Your task to perform on an android device: uninstall "Google Photos" Image 0: 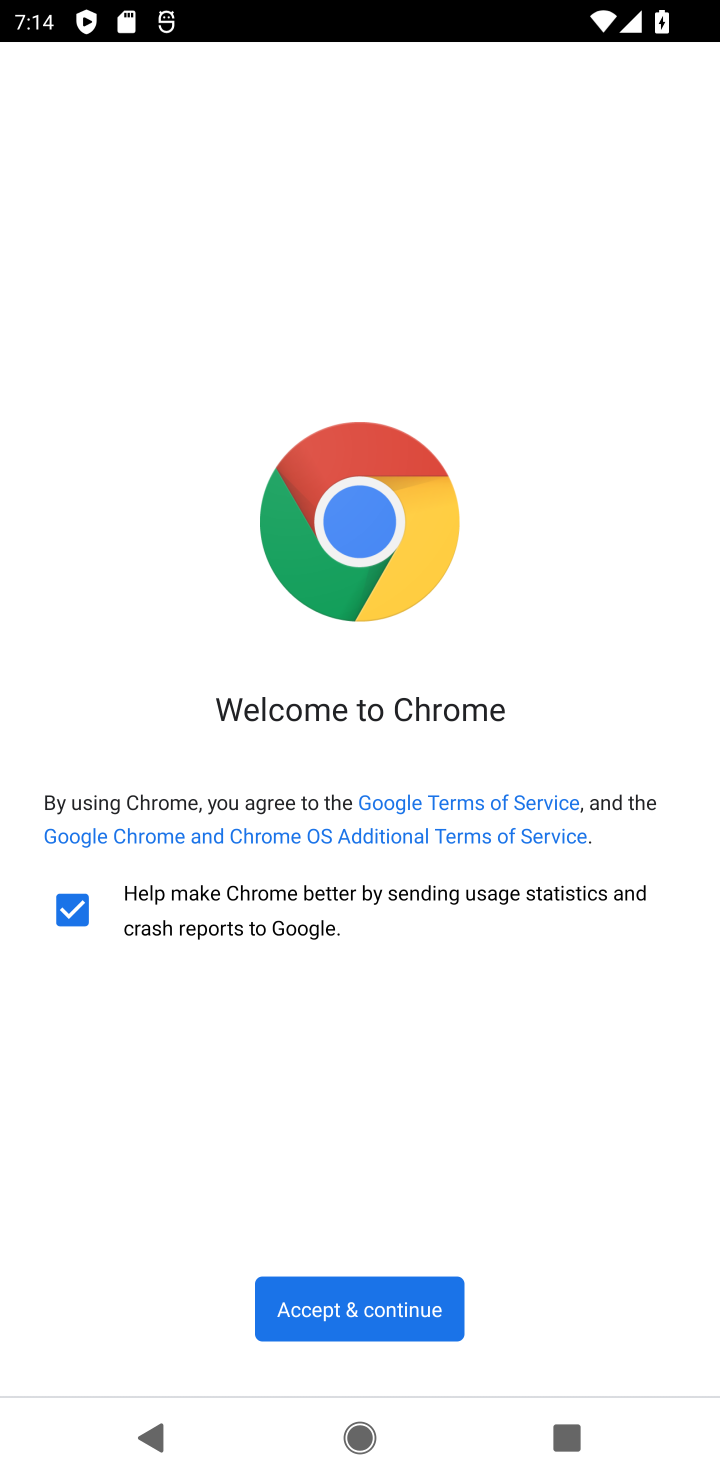
Step 0: press home button
Your task to perform on an android device: uninstall "Google Photos" Image 1: 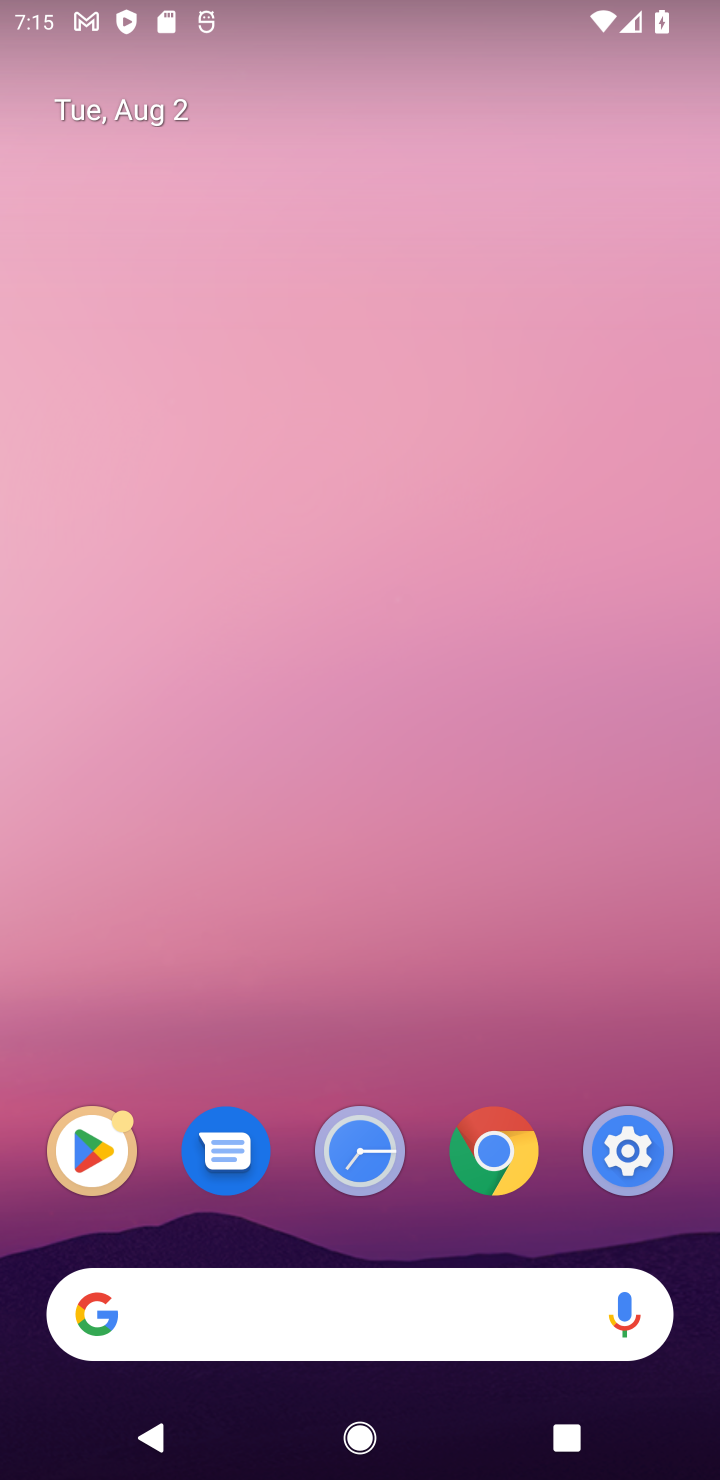
Step 1: drag from (356, 1238) to (458, 61)
Your task to perform on an android device: uninstall "Google Photos" Image 2: 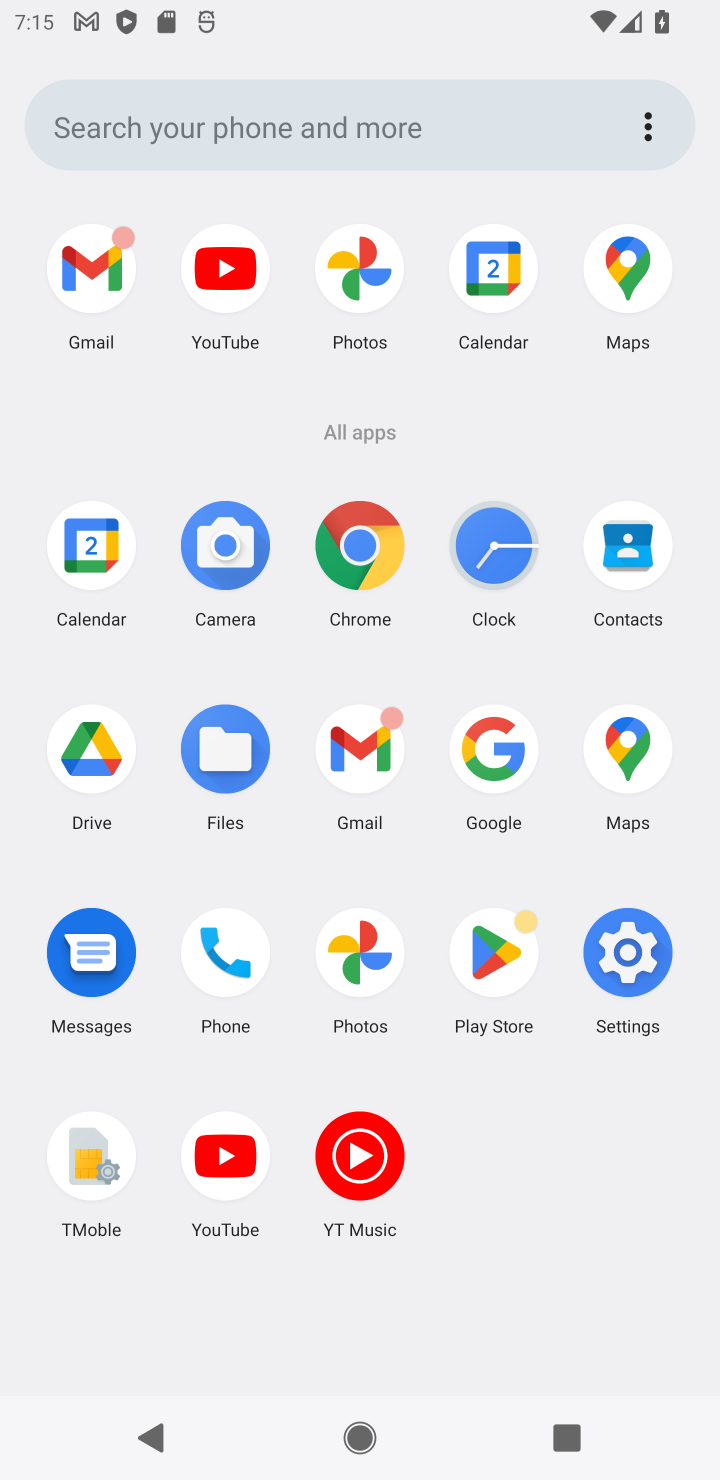
Step 2: click (376, 953)
Your task to perform on an android device: uninstall "Google Photos" Image 3: 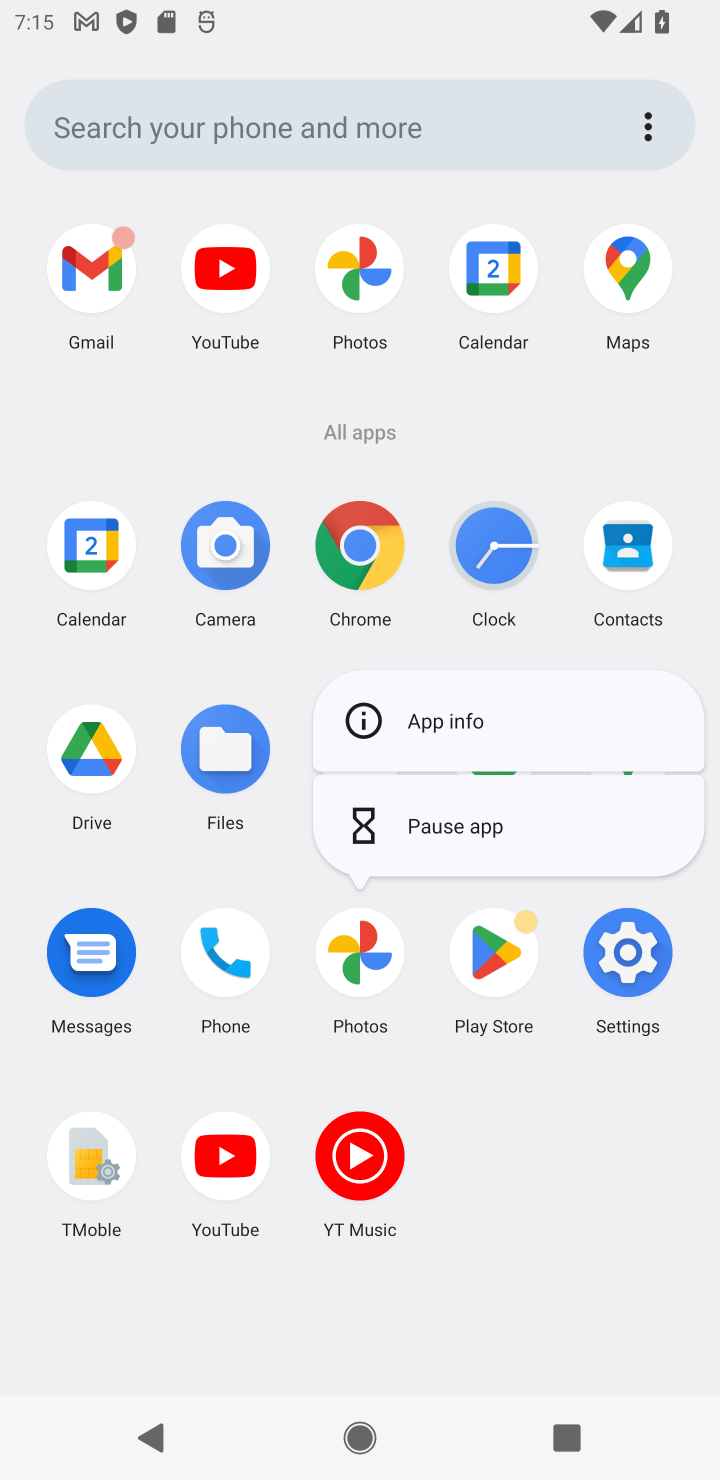
Step 3: click (445, 714)
Your task to perform on an android device: uninstall "Google Photos" Image 4: 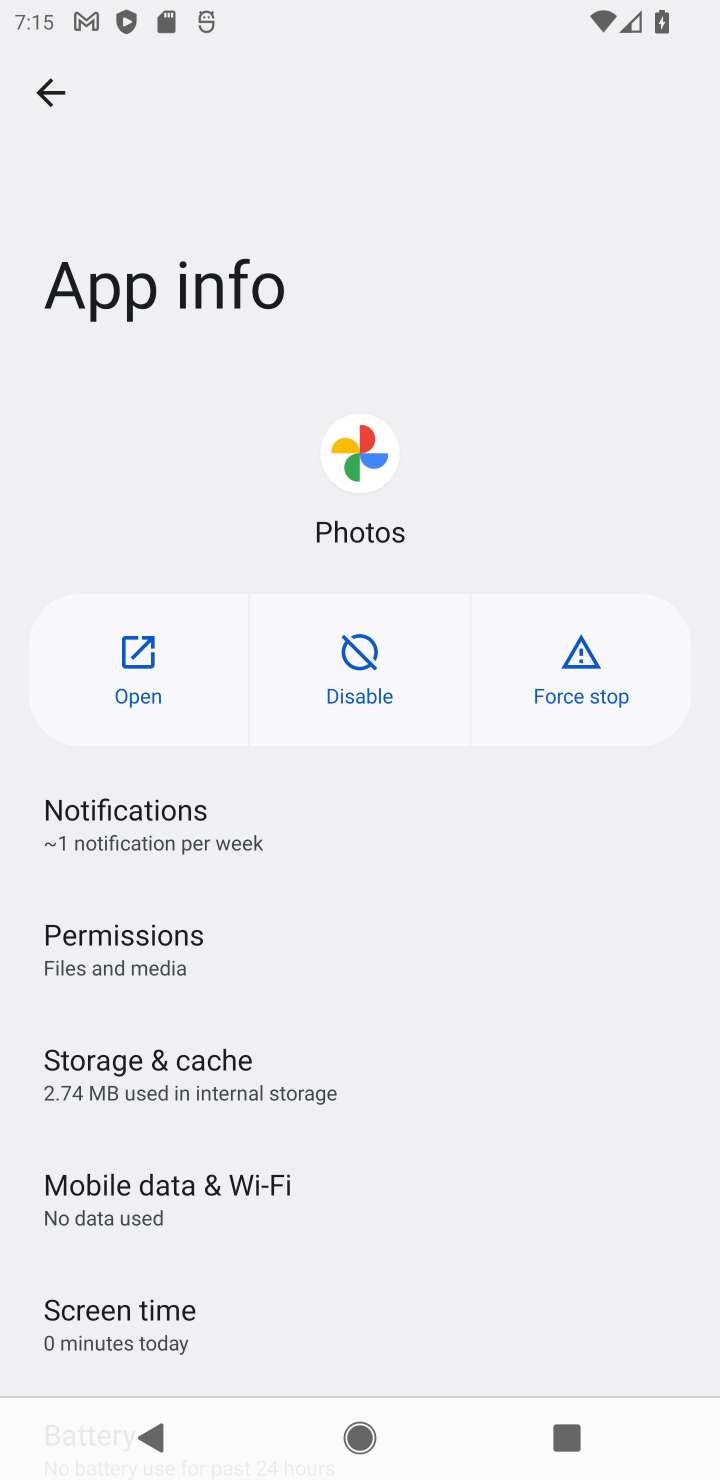
Step 4: task complete